Your task to perform on an android device: Open accessibility settings Image 0: 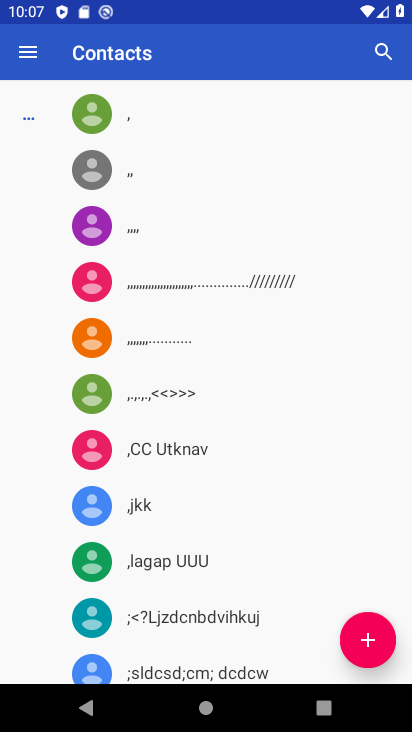
Step 0: press home button
Your task to perform on an android device: Open accessibility settings Image 1: 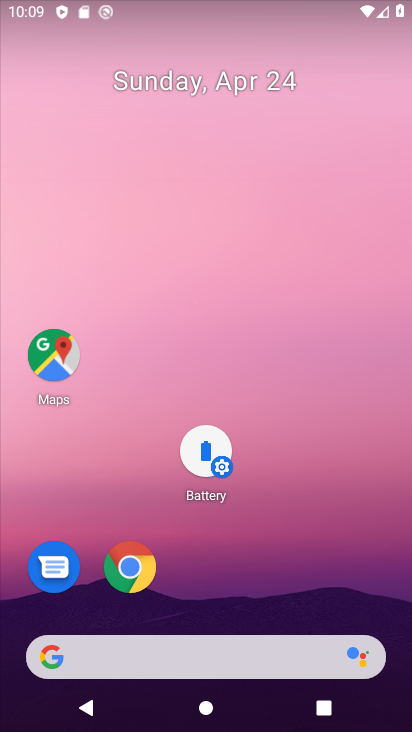
Step 1: drag from (62, 498) to (168, 198)
Your task to perform on an android device: Open accessibility settings Image 2: 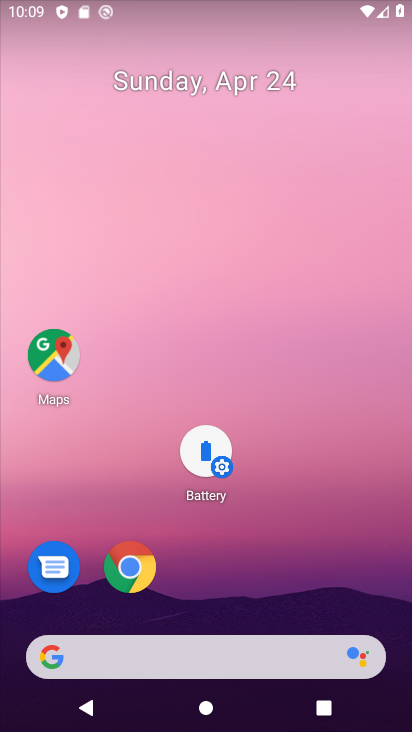
Step 2: drag from (18, 496) to (177, 134)
Your task to perform on an android device: Open accessibility settings Image 3: 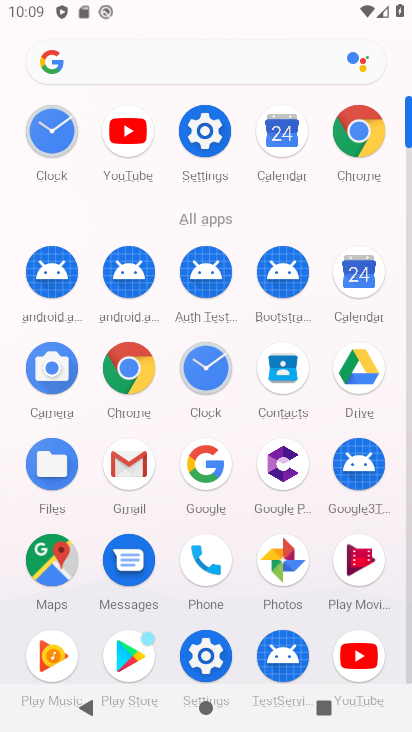
Step 3: click (197, 135)
Your task to perform on an android device: Open accessibility settings Image 4: 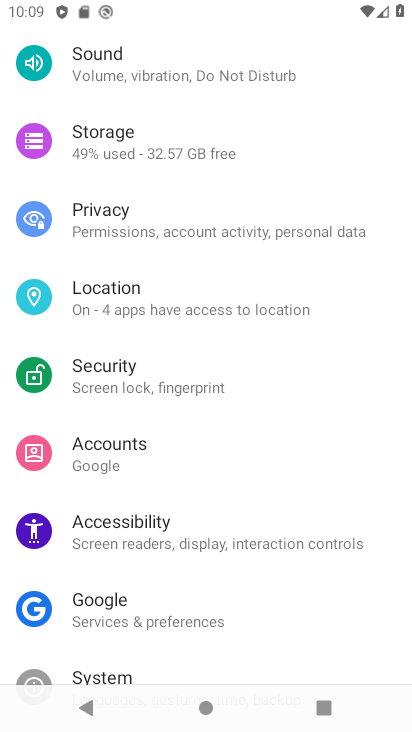
Step 4: drag from (141, 586) to (218, 211)
Your task to perform on an android device: Open accessibility settings Image 5: 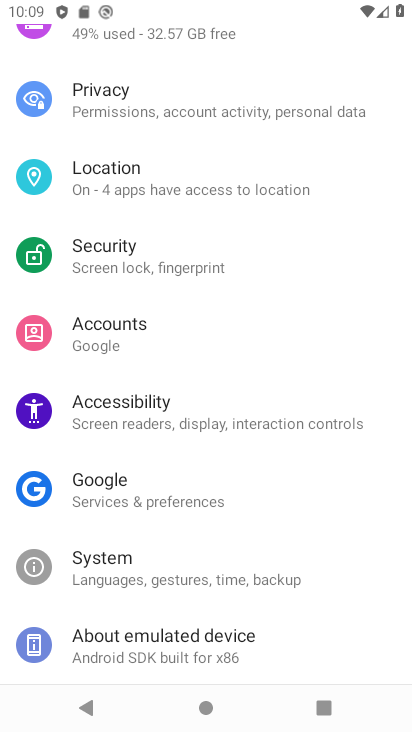
Step 5: click (120, 400)
Your task to perform on an android device: Open accessibility settings Image 6: 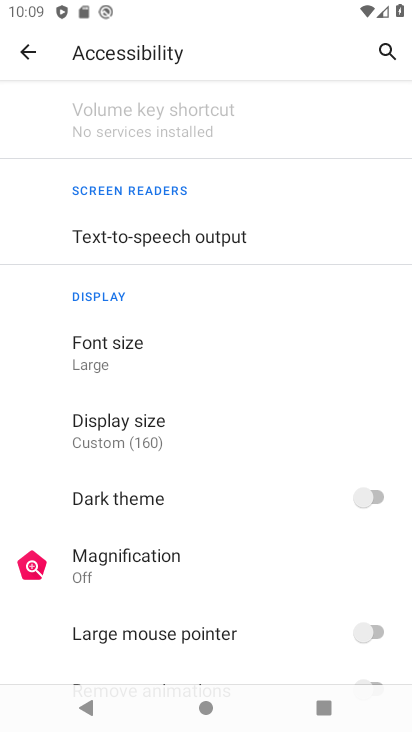
Step 6: task complete